Your task to perform on an android device: Show me recent news Image 0: 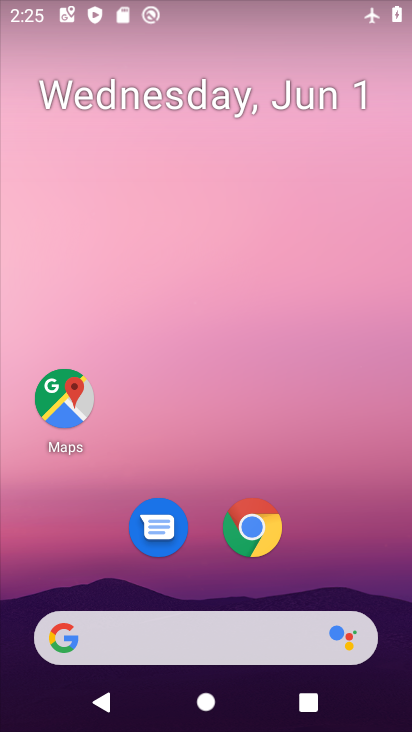
Step 0: drag from (307, 547) to (380, 121)
Your task to perform on an android device: Show me recent news Image 1: 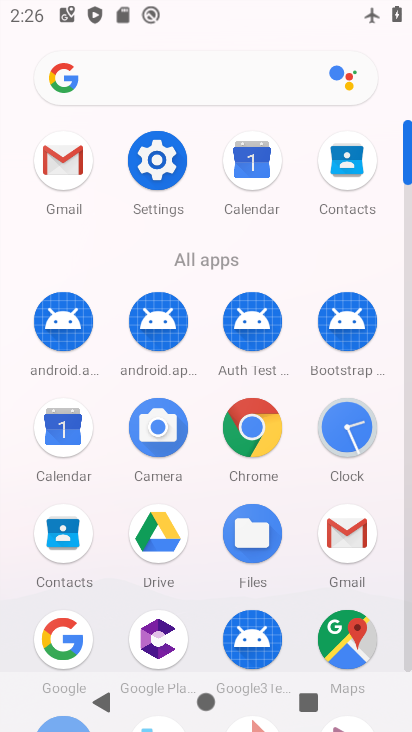
Step 1: click (56, 635)
Your task to perform on an android device: Show me recent news Image 2: 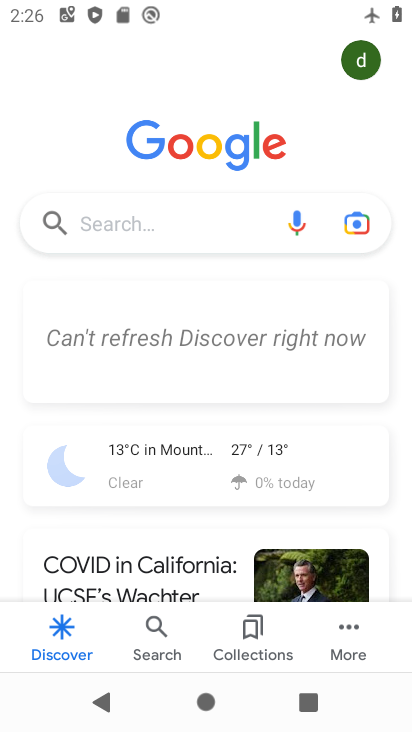
Step 2: click (176, 225)
Your task to perform on an android device: Show me recent news Image 3: 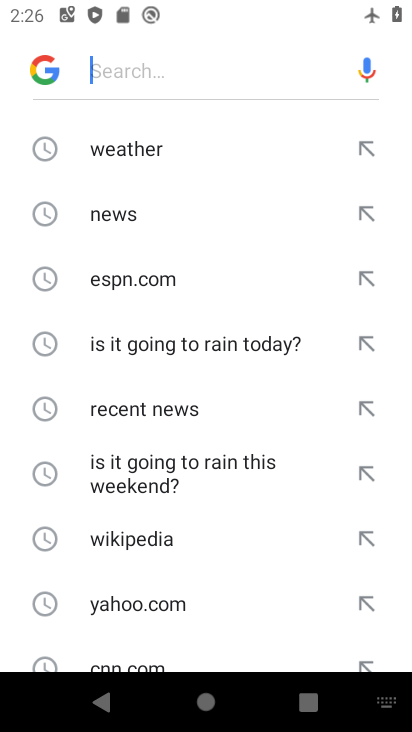
Step 3: type "recent news"
Your task to perform on an android device: Show me recent news Image 4: 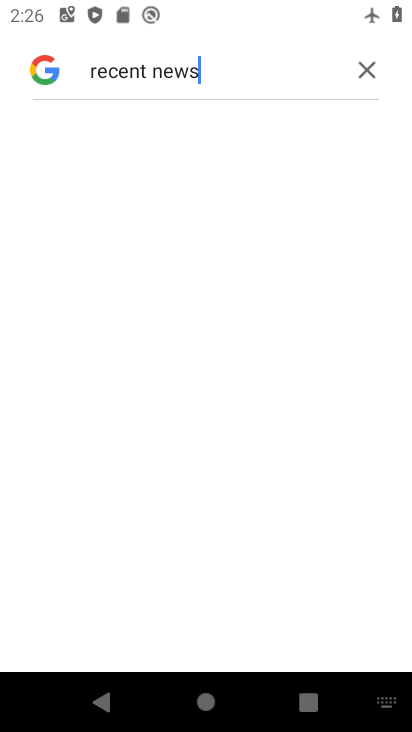
Step 4: click (249, 74)
Your task to perform on an android device: Show me recent news Image 5: 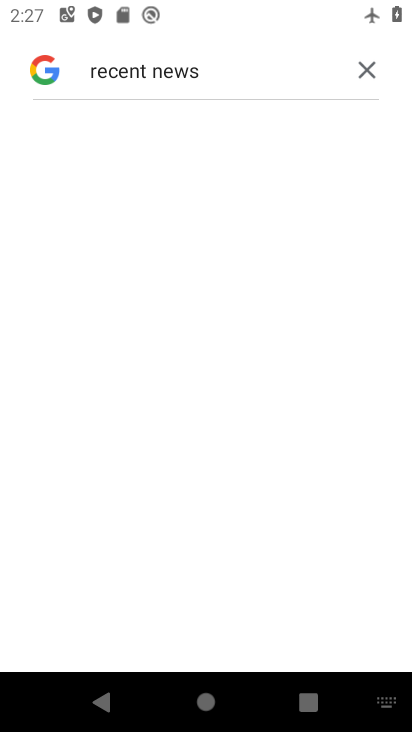
Step 5: task complete